Your task to perform on an android device: Do I have any events today? Image 0: 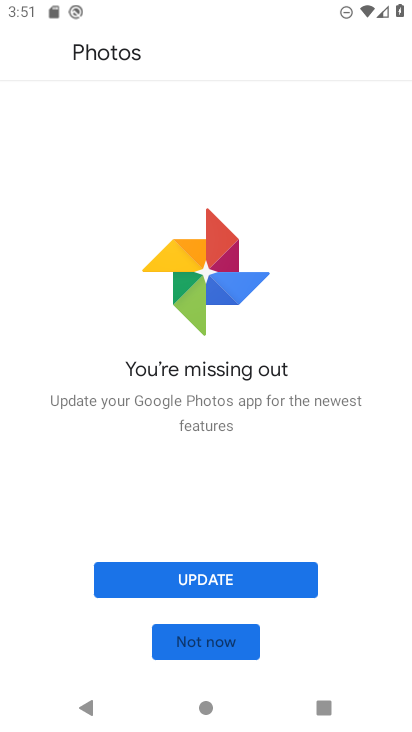
Step 0: press home button
Your task to perform on an android device: Do I have any events today? Image 1: 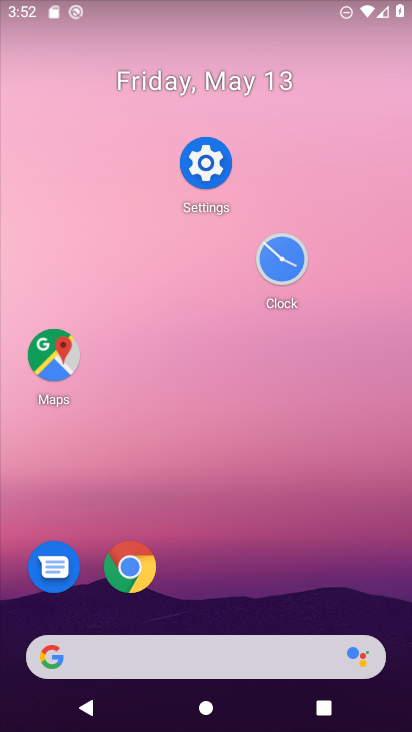
Step 1: drag from (236, 575) to (239, 114)
Your task to perform on an android device: Do I have any events today? Image 2: 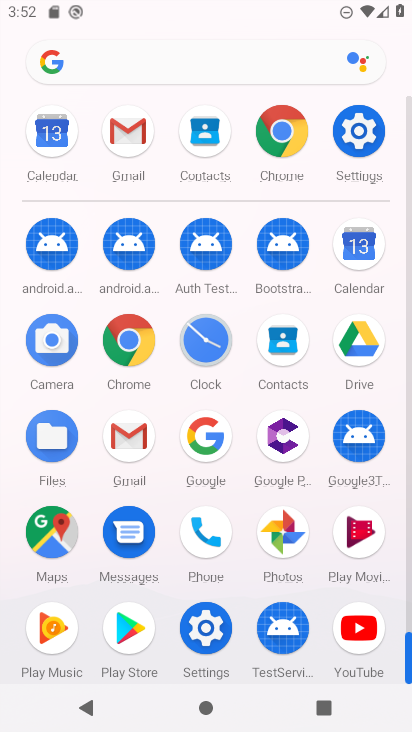
Step 2: click (351, 257)
Your task to perform on an android device: Do I have any events today? Image 3: 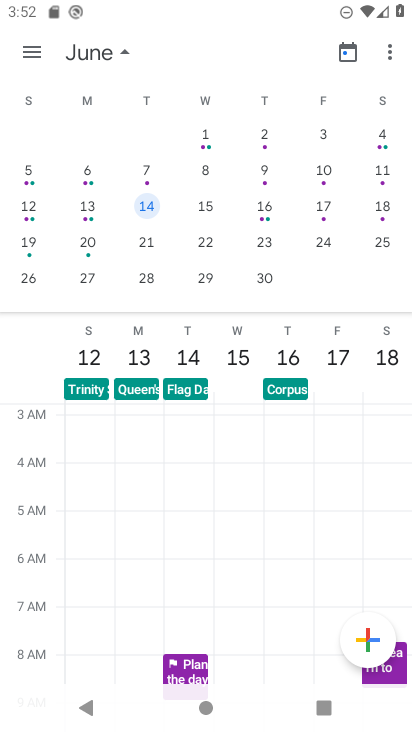
Step 3: task complete